Your task to perform on an android device: turn off location Image 0: 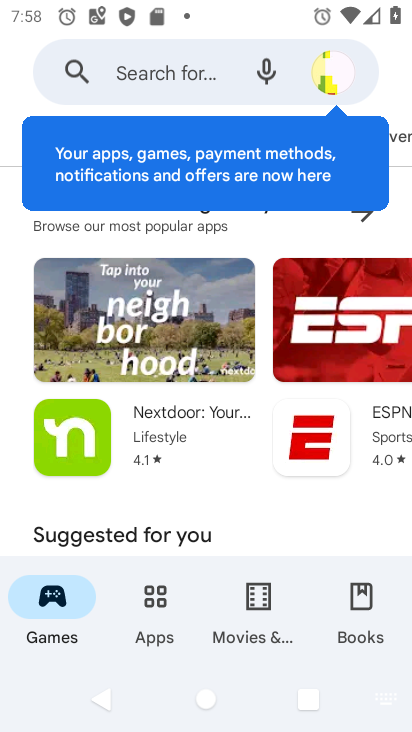
Step 0: press home button
Your task to perform on an android device: turn off location Image 1: 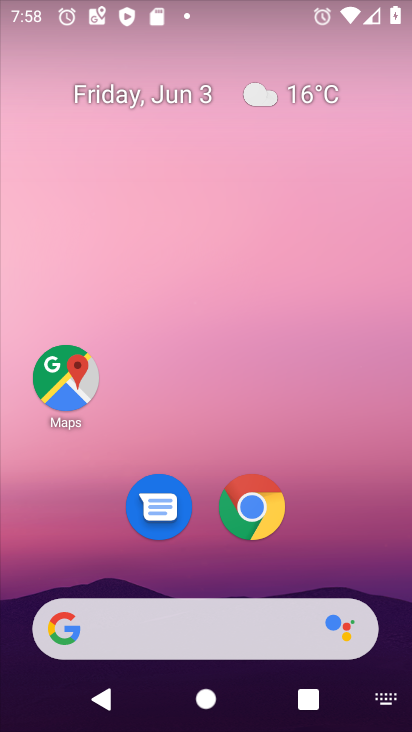
Step 1: drag from (354, 484) to (227, 78)
Your task to perform on an android device: turn off location Image 2: 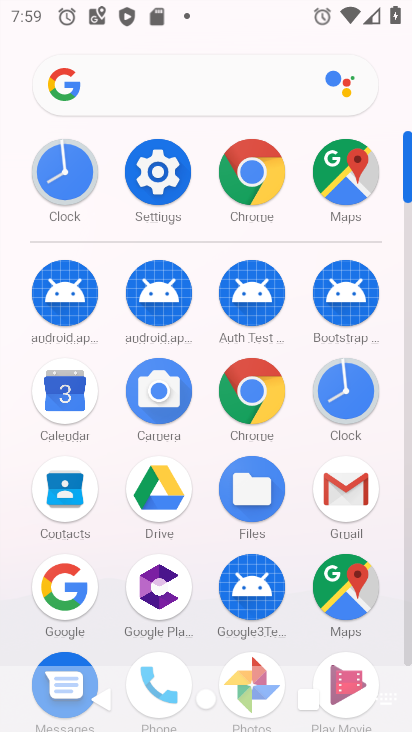
Step 2: click (164, 164)
Your task to perform on an android device: turn off location Image 3: 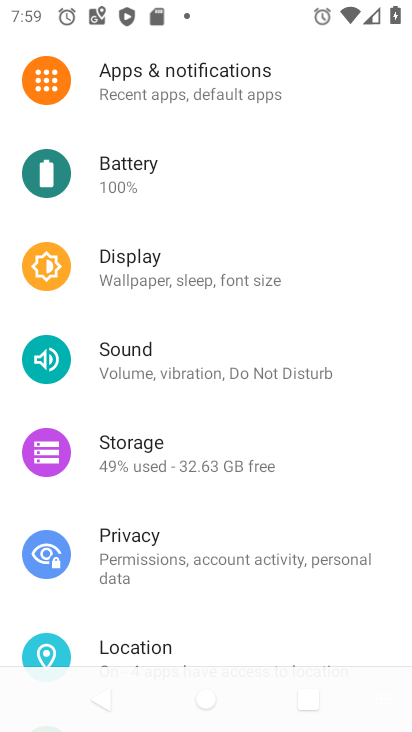
Step 3: click (262, 640)
Your task to perform on an android device: turn off location Image 4: 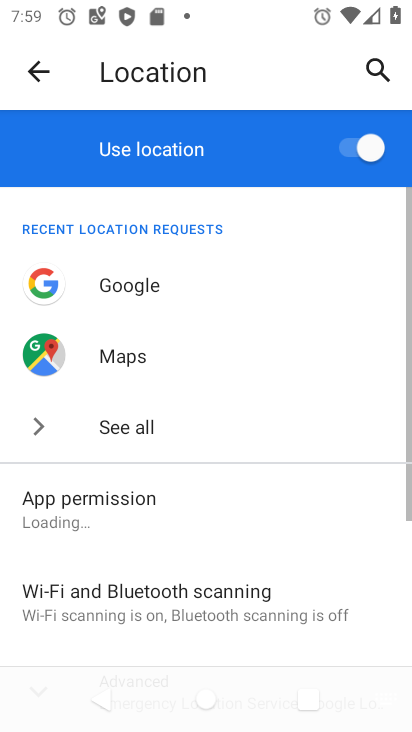
Step 4: click (343, 138)
Your task to perform on an android device: turn off location Image 5: 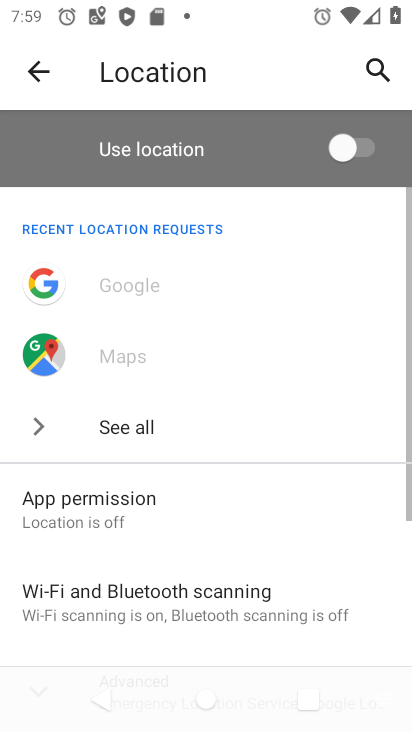
Step 5: task complete